Your task to perform on an android device: Search for Italian restaurants on Maps Image 0: 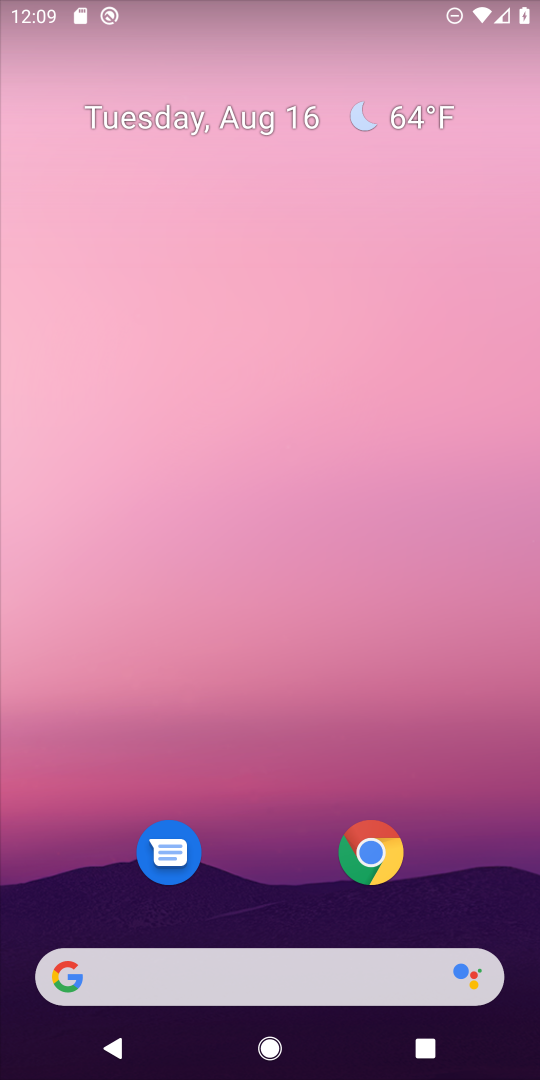
Step 0: drag from (312, 745) to (426, 33)
Your task to perform on an android device: Search for Italian restaurants on Maps Image 1: 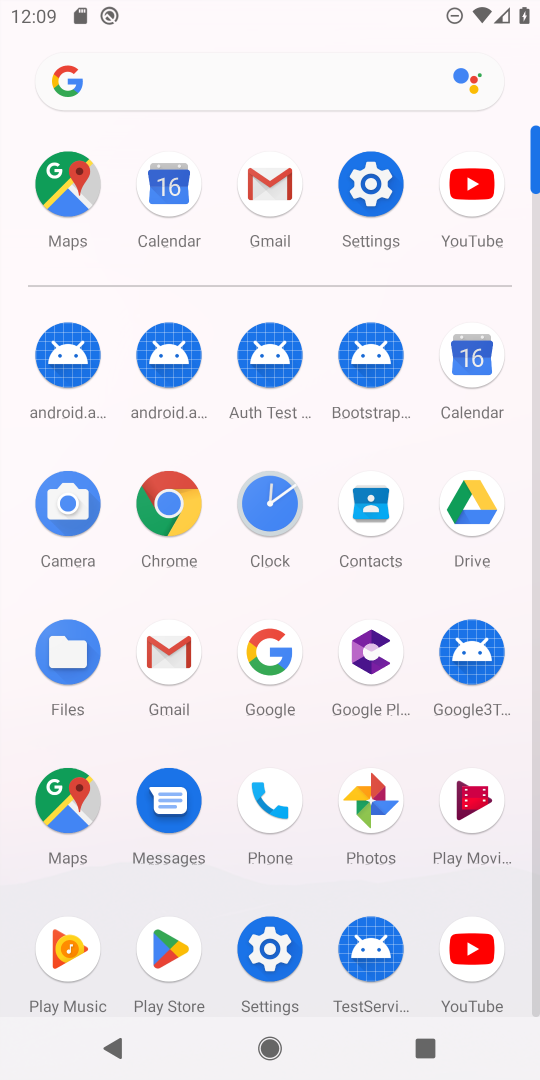
Step 1: click (71, 191)
Your task to perform on an android device: Search for Italian restaurants on Maps Image 2: 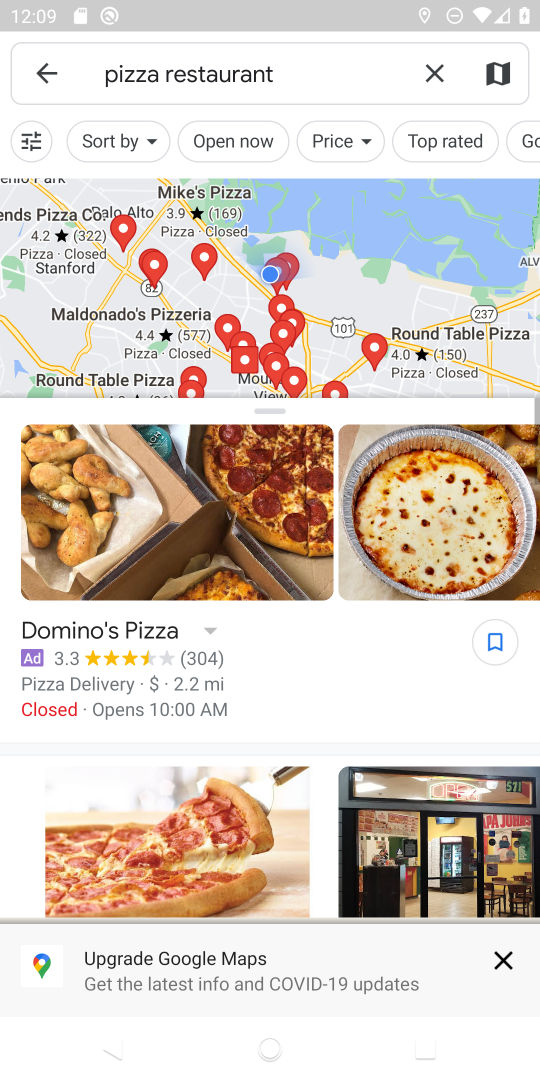
Step 2: click (428, 72)
Your task to perform on an android device: Search for Italian restaurants on Maps Image 3: 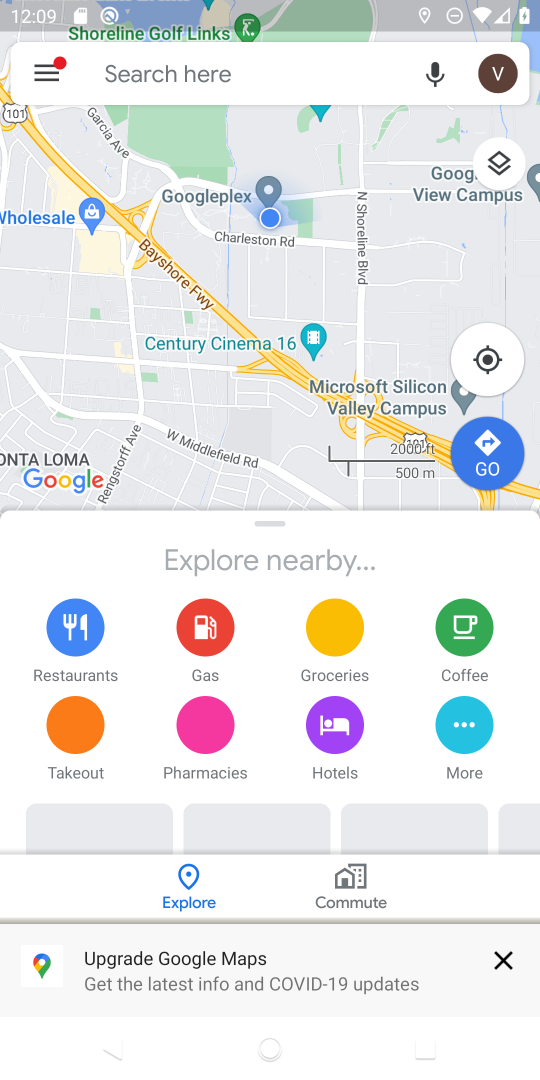
Step 3: click (230, 83)
Your task to perform on an android device: Search for Italian restaurants on Maps Image 4: 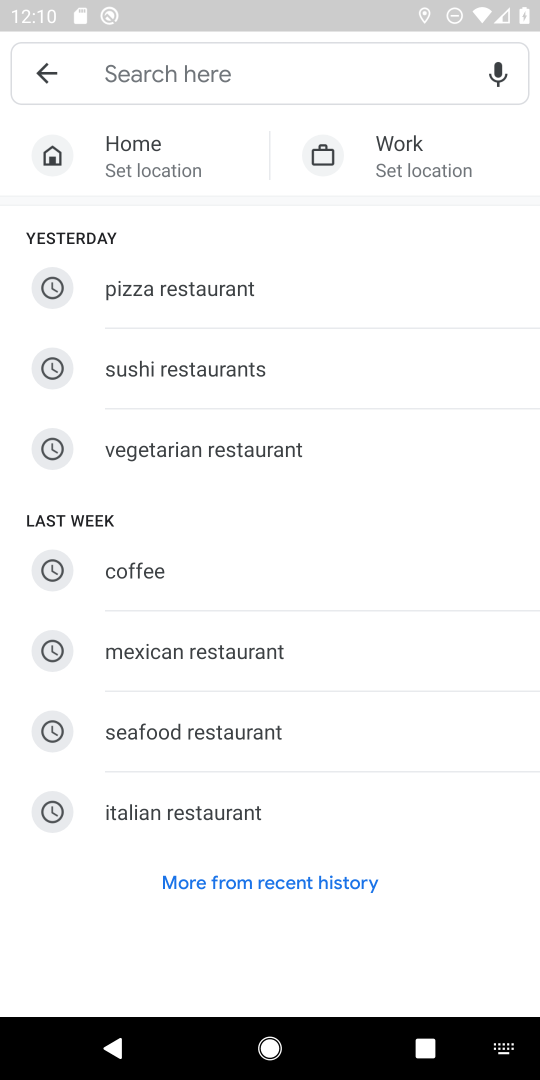
Step 4: click (146, 798)
Your task to perform on an android device: Search for Italian restaurants on Maps Image 5: 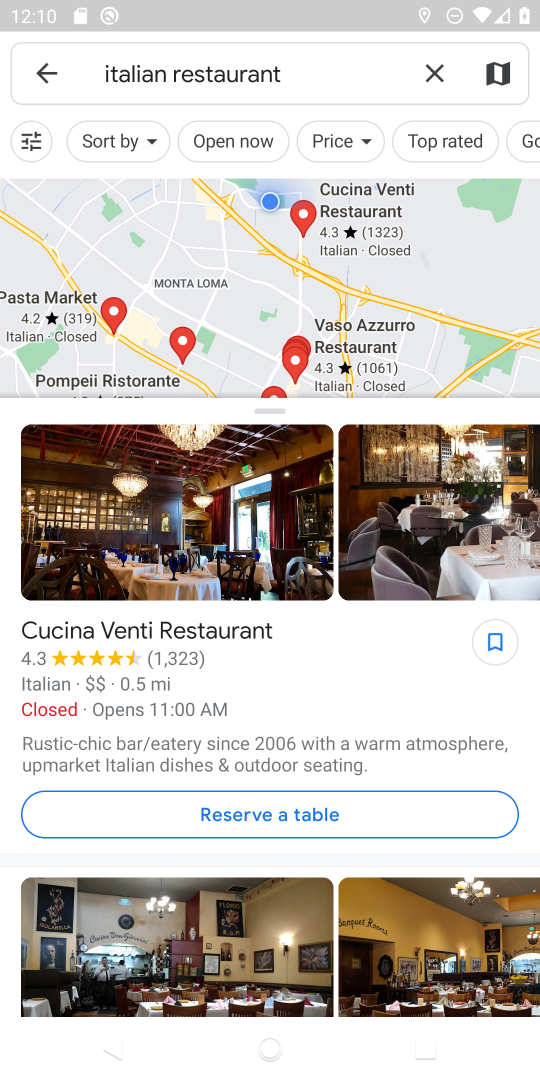
Step 5: task complete